Your task to perform on an android device: find which apps use the phone's location Image 0: 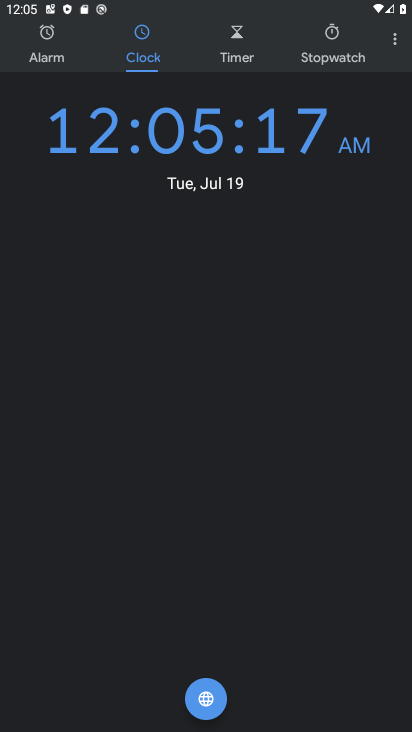
Step 0: press home button
Your task to perform on an android device: find which apps use the phone's location Image 1: 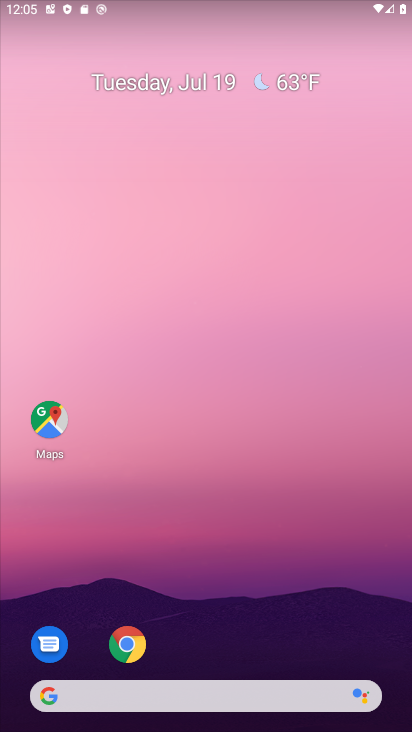
Step 1: drag from (213, 726) to (211, 274)
Your task to perform on an android device: find which apps use the phone's location Image 2: 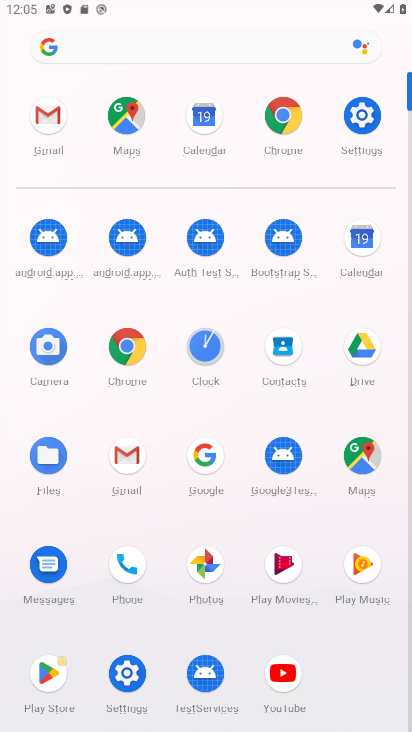
Step 2: click (361, 117)
Your task to perform on an android device: find which apps use the phone's location Image 3: 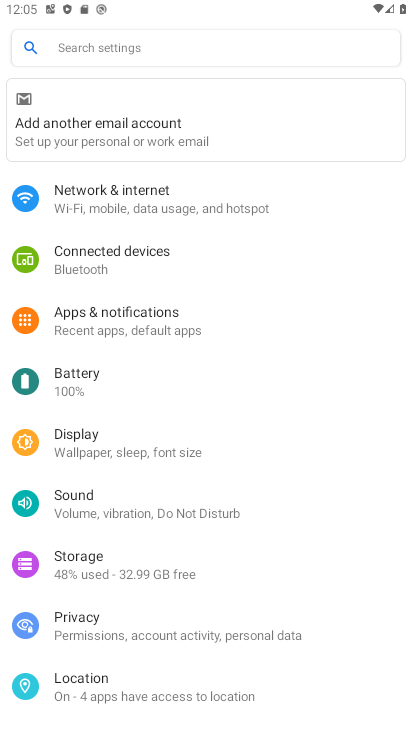
Step 3: click (85, 684)
Your task to perform on an android device: find which apps use the phone's location Image 4: 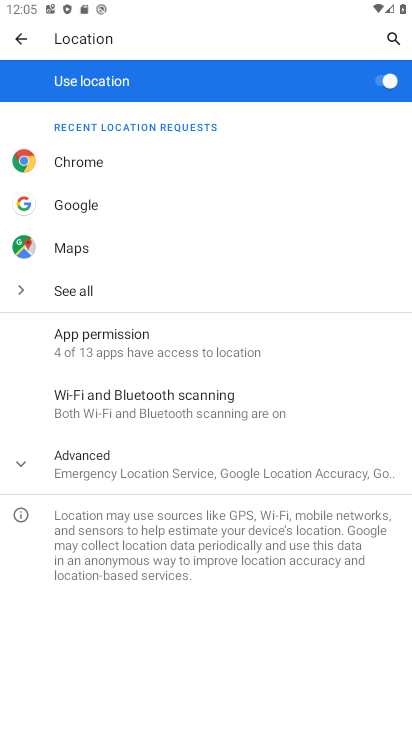
Step 4: click (96, 341)
Your task to perform on an android device: find which apps use the phone's location Image 5: 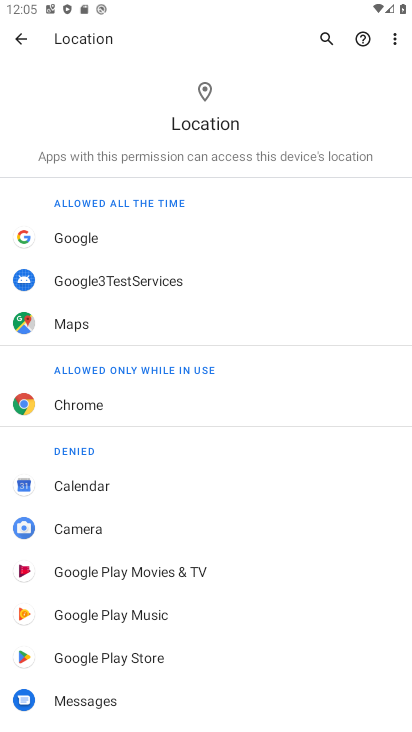
Step 5: task complete